Your task to perform on an android device: delete location history Image 0: 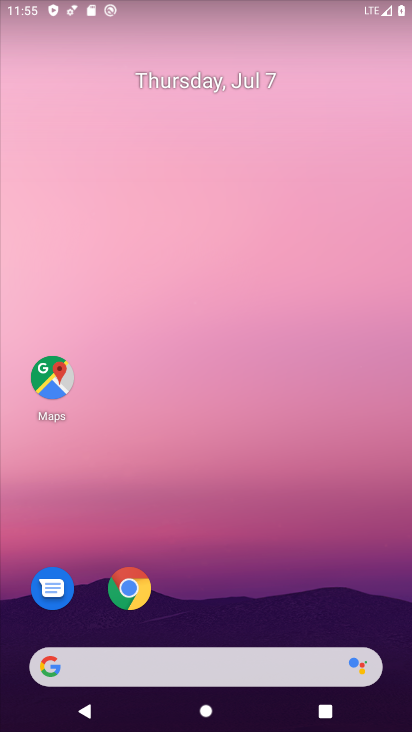
Step 0: press home button
Your task to perform on an android device: delete location history Image 1: 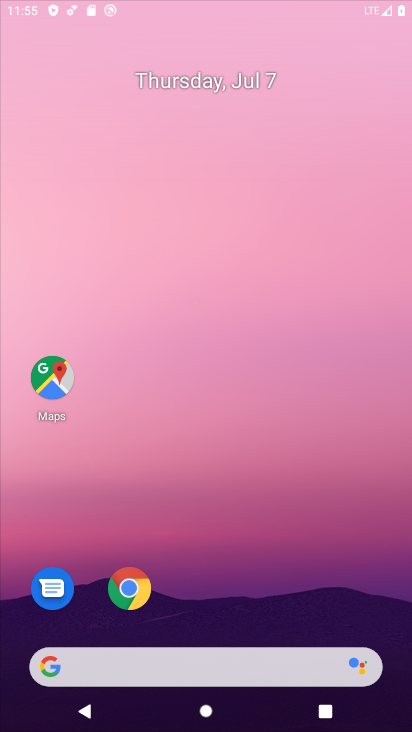
Step 1: drag from (216, 626) to (225, 72)
Your task to perform on an android device: delete location history Image 2: 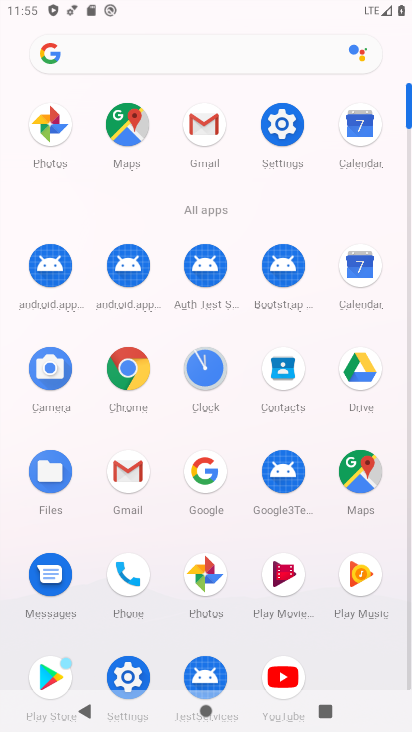
Step 2: click (361, 465)
Your task to perform on an android device: delete location history Image 3: 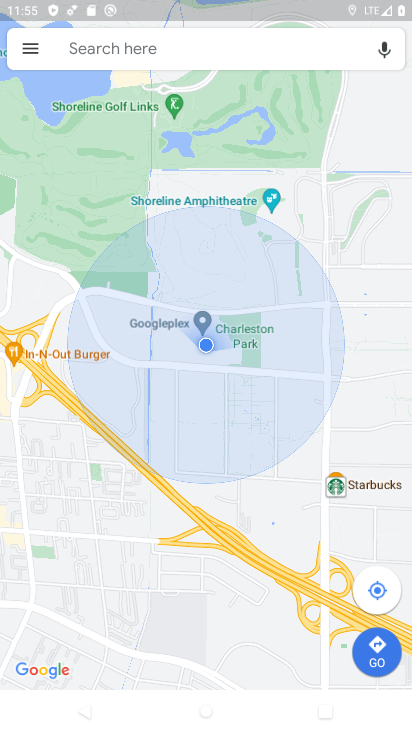
Step 3: click (33, 43)
Your task to perform on an android device: delete location history Image 4: 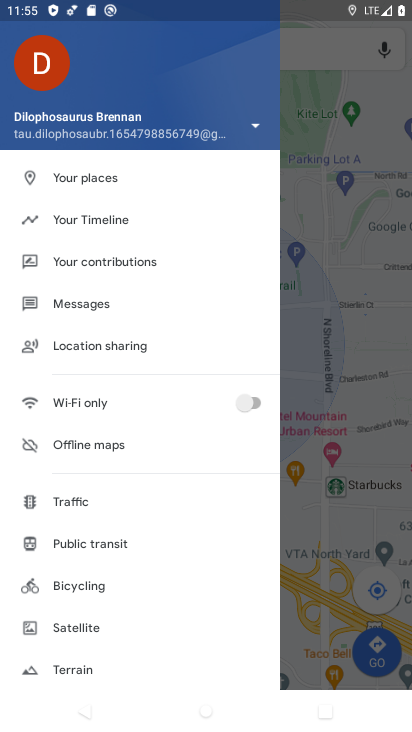
Step 4: click (128, 218)
Your task to perform on an android device: delete location history Image 5: 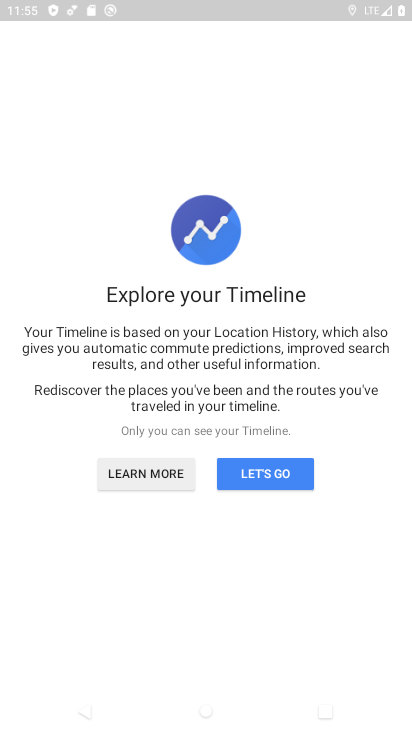
Step 5: click (271, 471)
Your task to perform on an android device: delete location history Image 6: 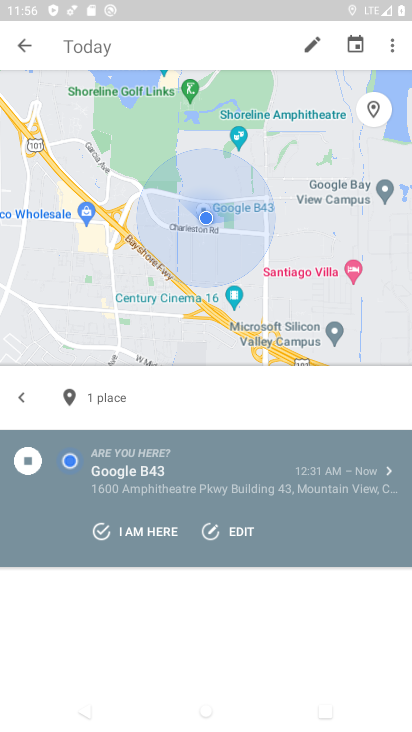
Step 6: click (393, 41)
Your task to perform on an android device: delete location history Image 7: 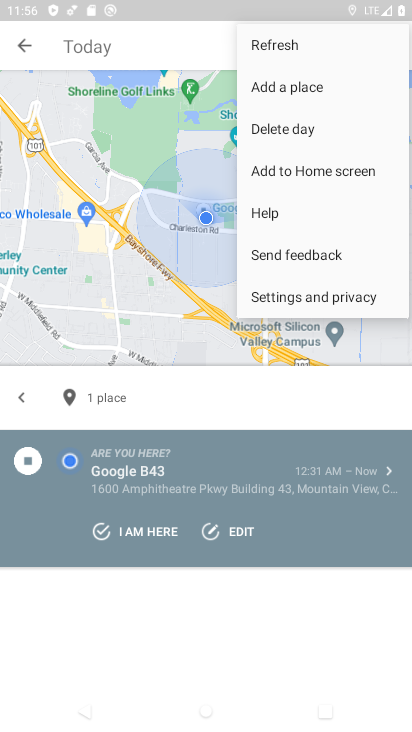
Step 7: click (301, 297)
Your task to perform on an android device: delete location history Image 8: 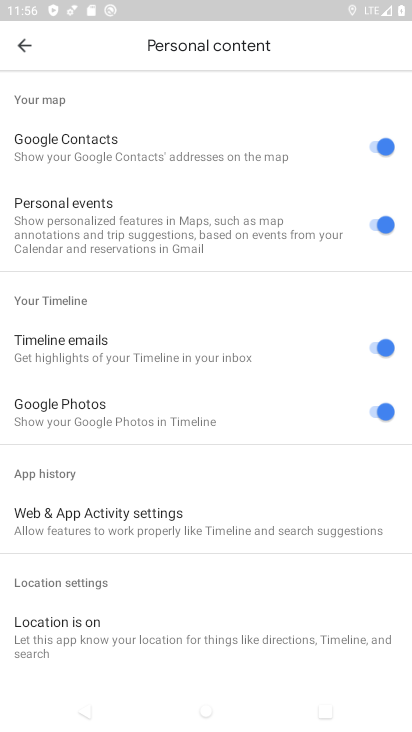
Step 8: drag from (197, 588) to (200, 282)
Your task to perform on an android device: delete location history Image 9: 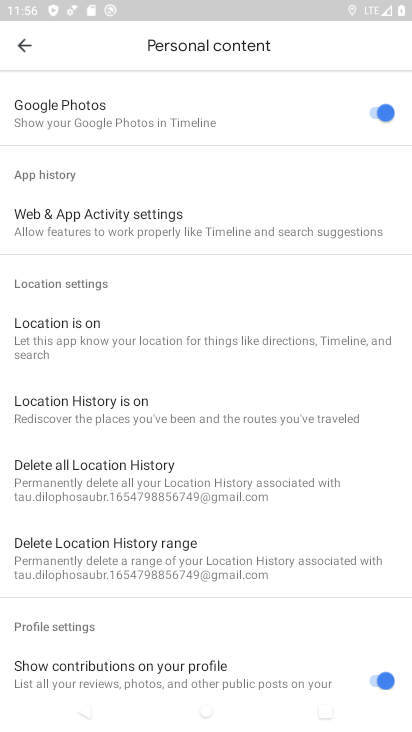
Step 9: click (167, 482)
Your task to perform on an android device: delete location history Image 10: 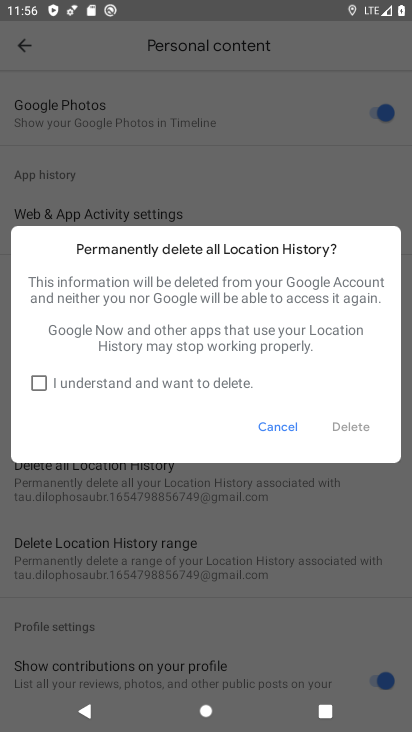
Step 10: click (41, 380)
Your task to perform on an android device: delete location history Image 11: 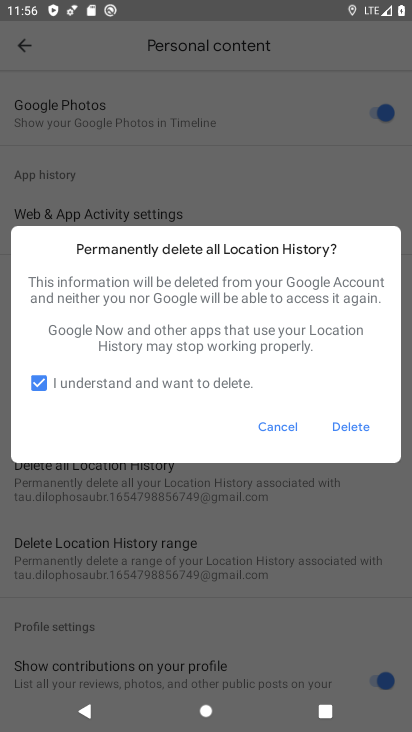
Step 11: click (347, 428)
Your task to perform on an android device: delete location history Image 12: 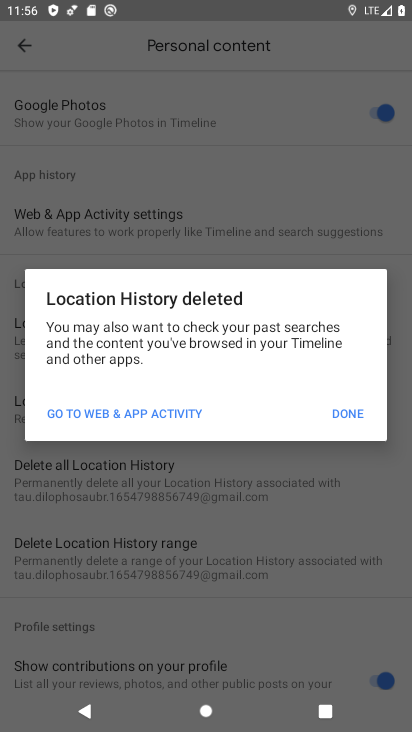
Step 12: click (354, 410)
Your task to perform on an android device: delete location history Image 13: 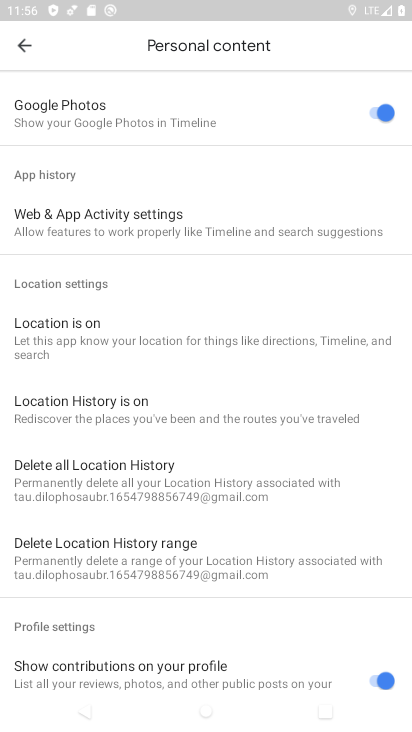
Step 13: task complete